Your task to perform on an android device: uninstall "Google Chrome" Image 0: 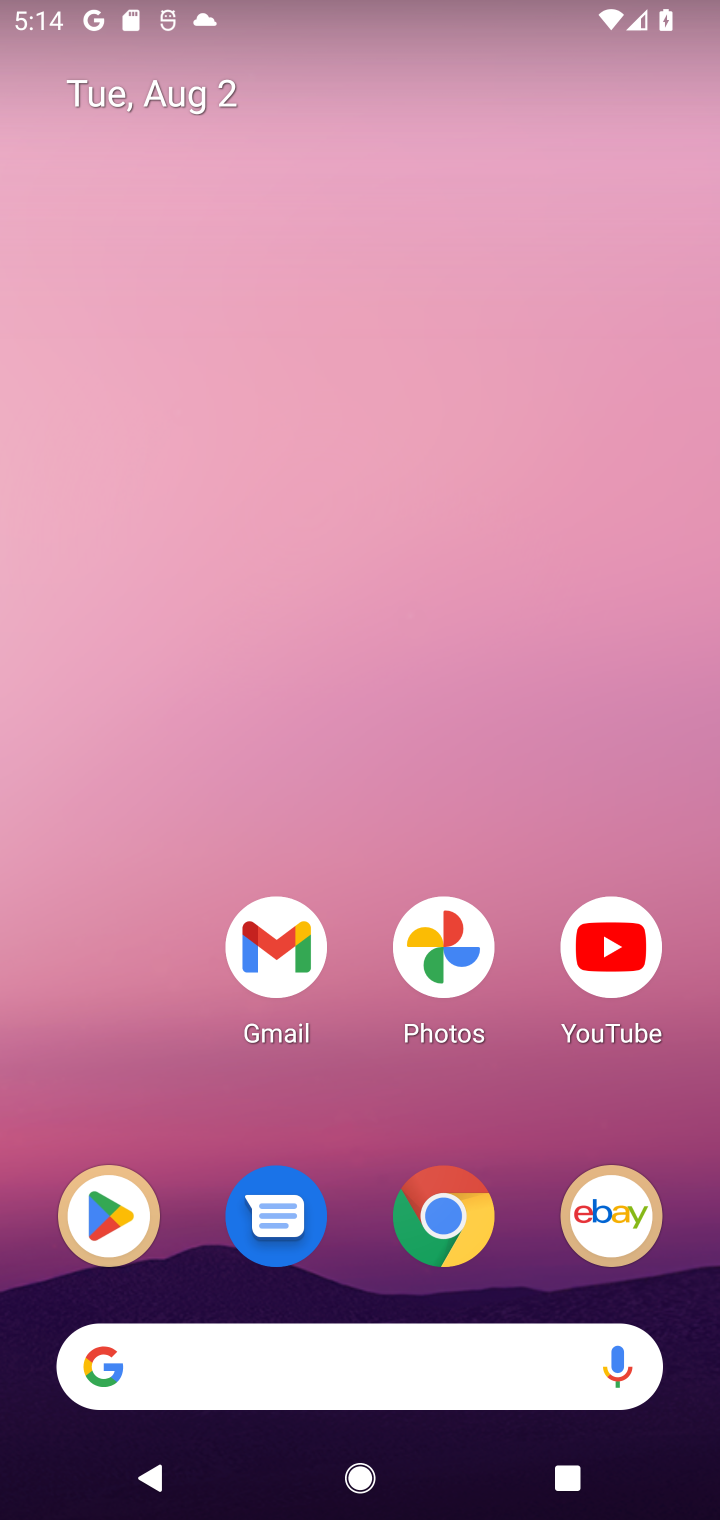
Step 0: click (449, 1171)
Your task to perform on an android device: uninstall "Google Chrome" Image 1: 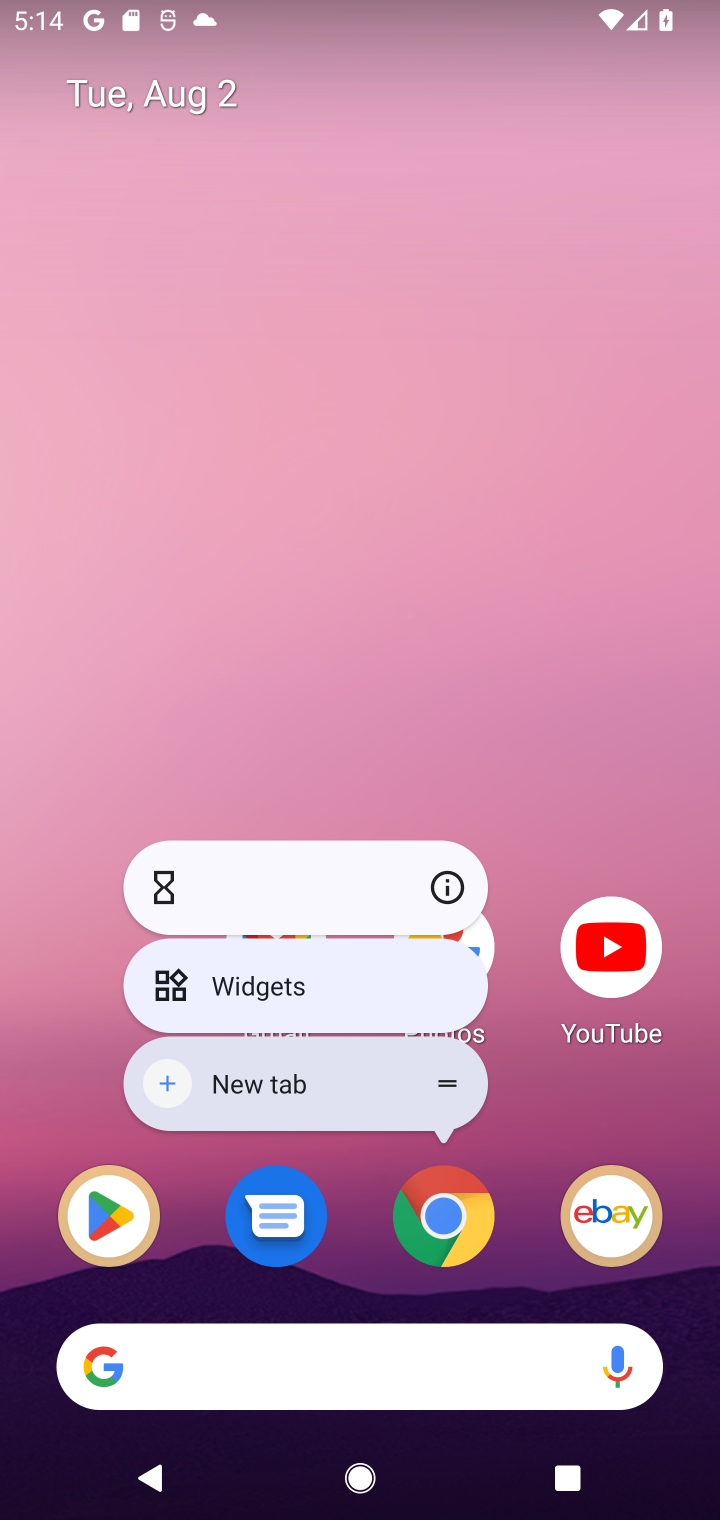
Step 1: click (440, 897)
Your task to perform on an android device: uninstall "Google Chrome" Image 2: 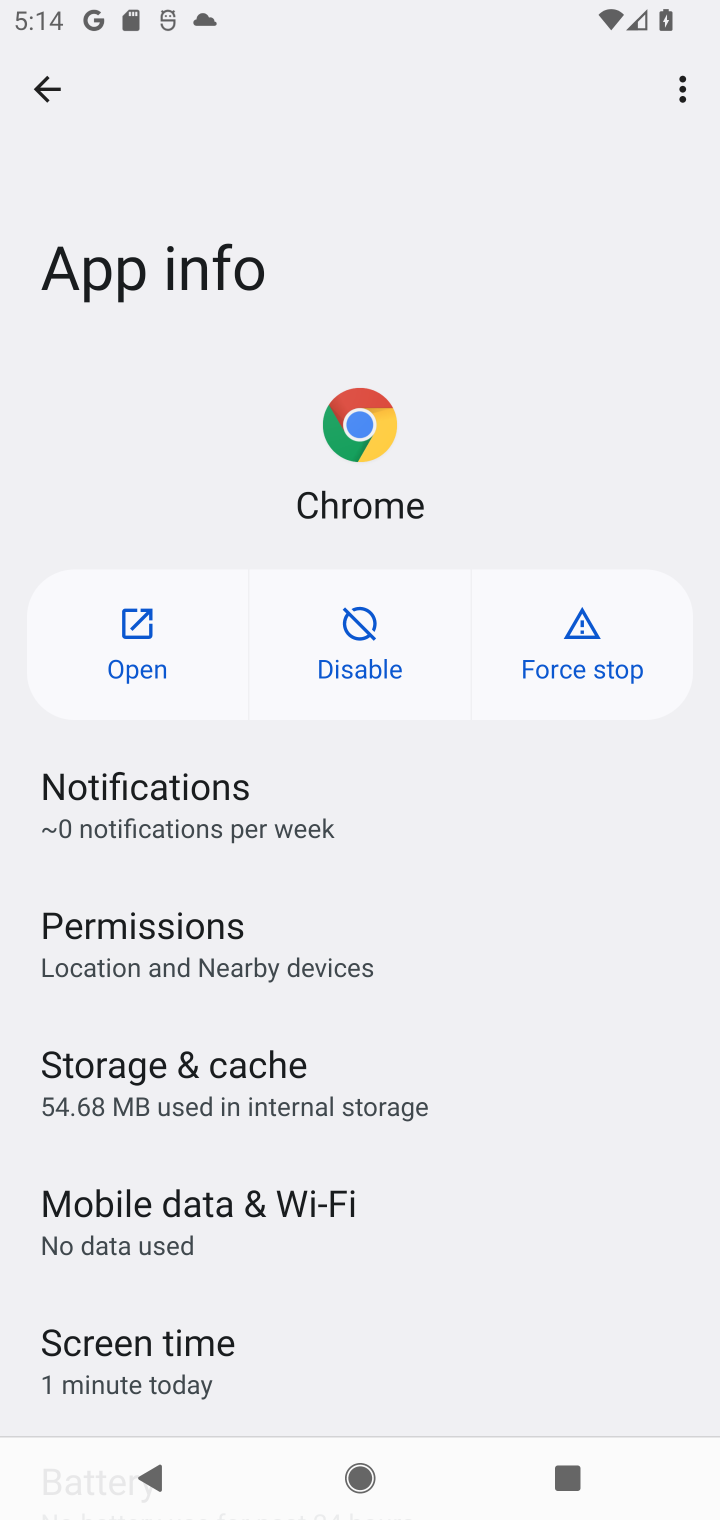
Step 2: task complete